Your task to perform on an android device: toggle notifications settings in the gmail app Image 0: 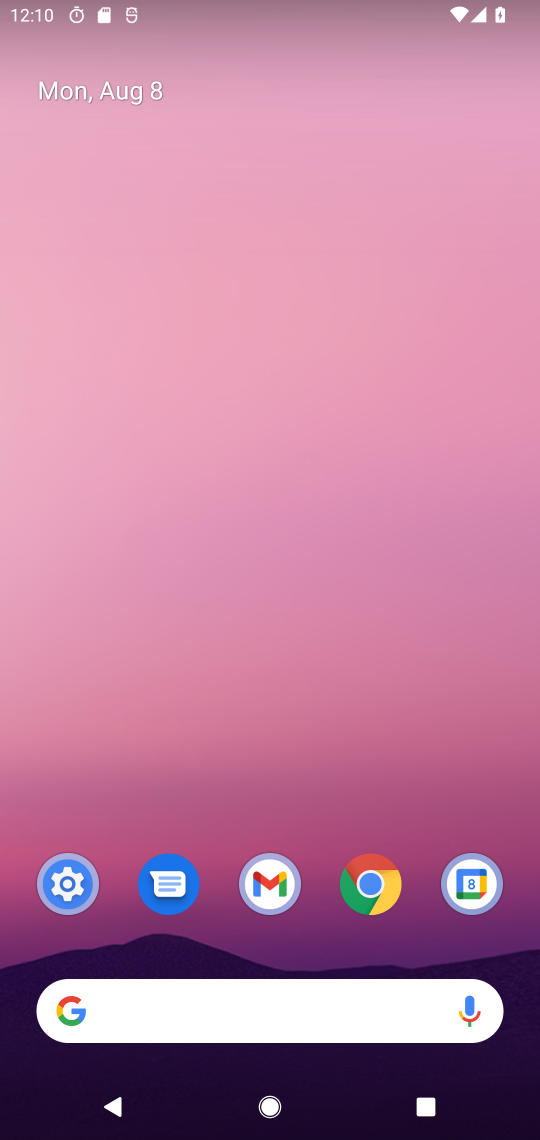
Step 0: click (280, 893)
Your task to perform on an android device: toggle notifications settings in the gmail app Image 1: 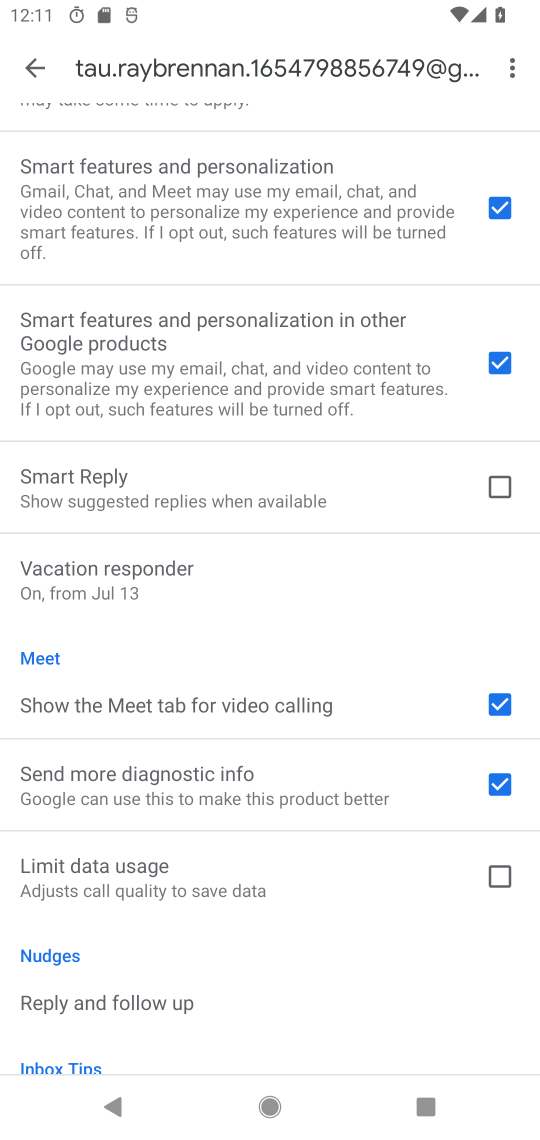
Step 1: click (42, 68)
Your task to perform on an android device: toggle notifications settings in the gmail app Image 2: 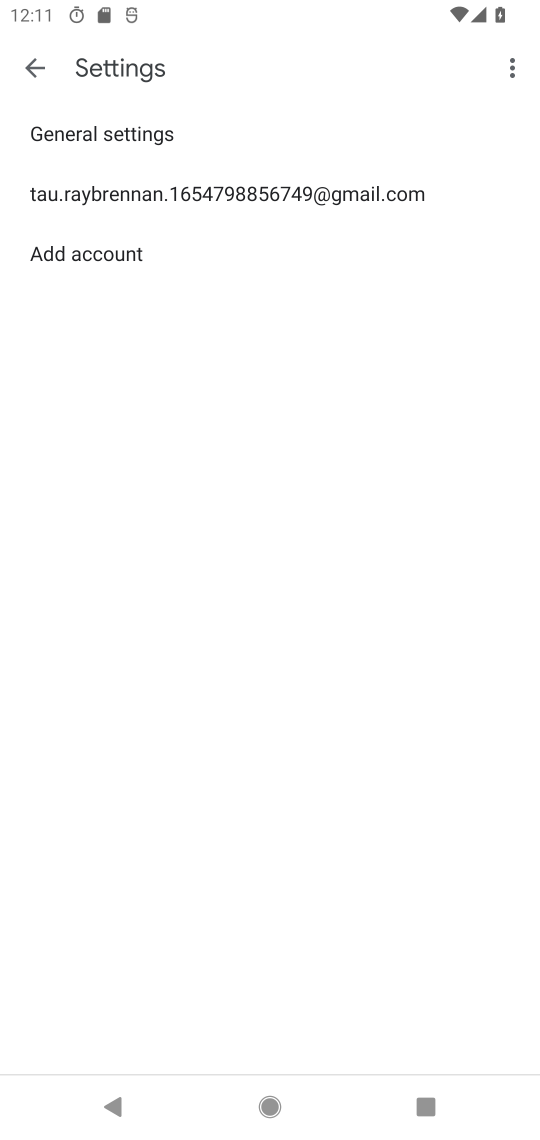
Step 2: click (42, 68)
Your task to perform on an android device: toggle notifications settings in the gmail app Image 3: 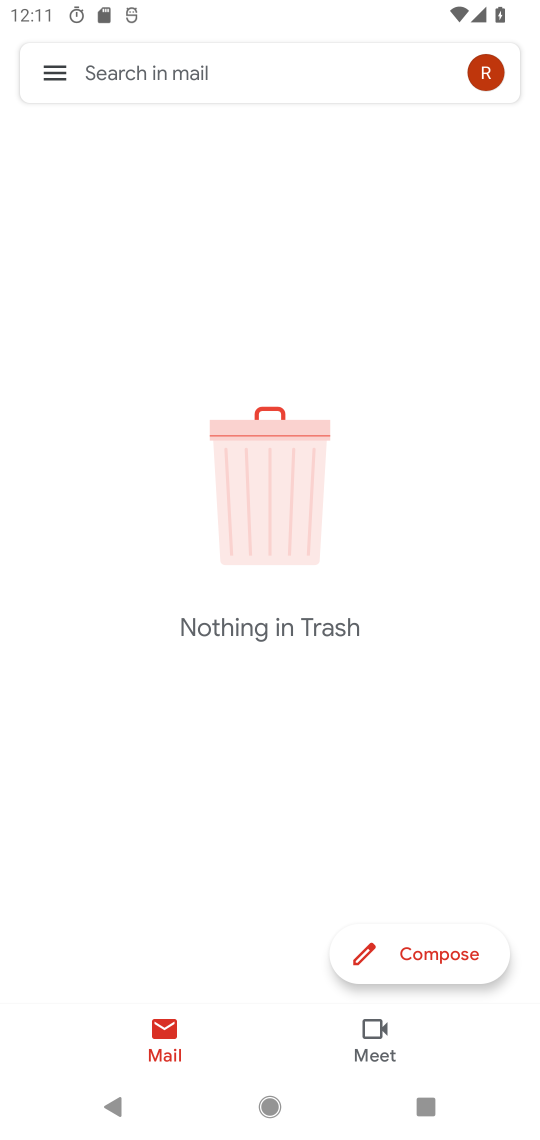
Step 3: click (46, 68)
Your task to perform on an android device: toggle notifications settings in the gmail app Image 4: 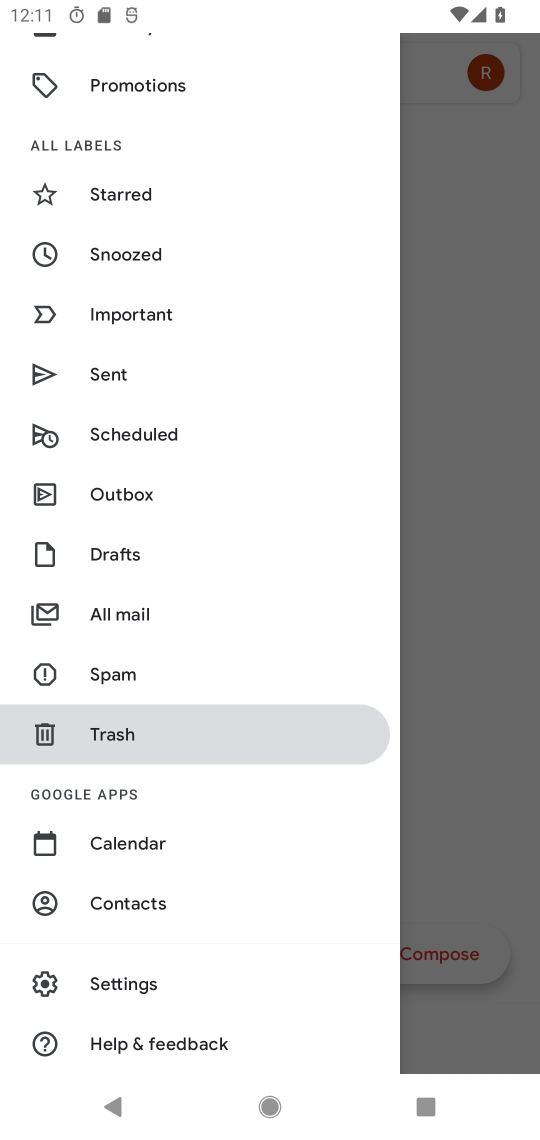
Step 4: click (114, 987)
Your task to perform on an android device: toggle notifications settings in the gmail app Image 5: 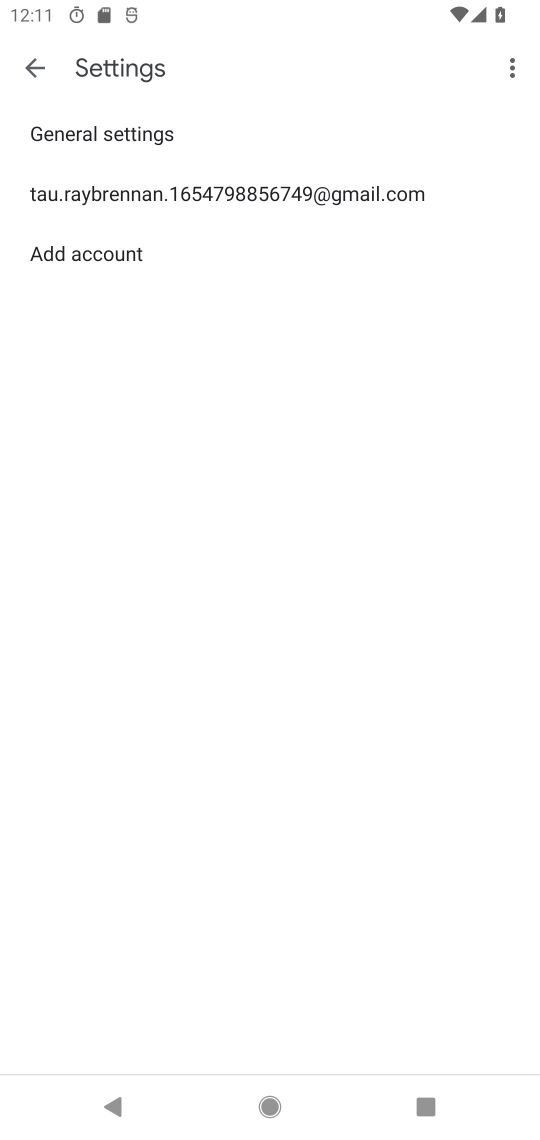
Step 5: click (126, 197)
Your task to perform on an android device: toggle notifications settings in the gmail app Image 6: 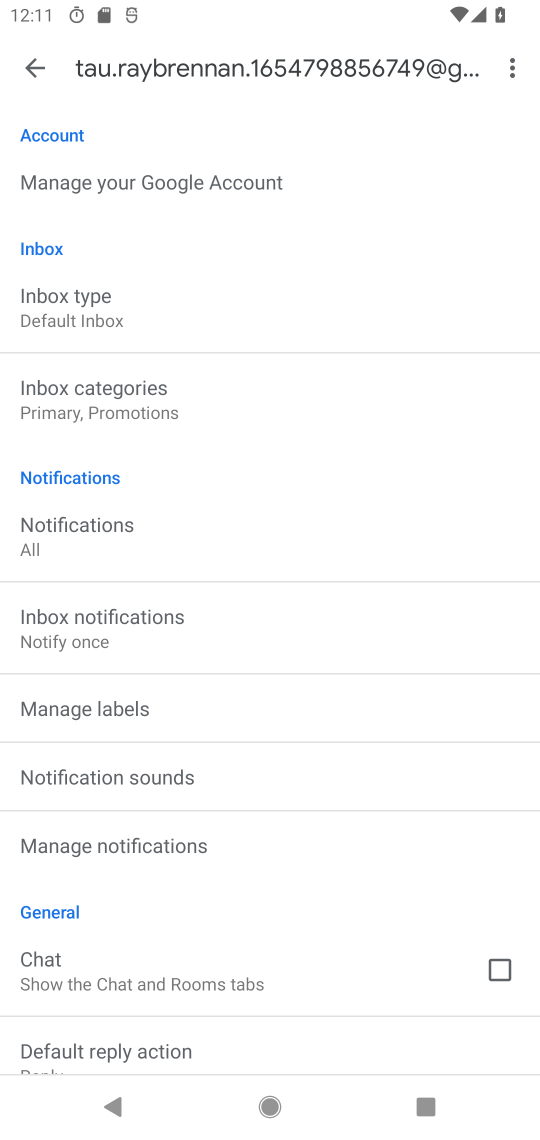
Step 6: click (120, 838)
Your task to perform on an android device: toggle notifications settings in the gmail app Image 7: 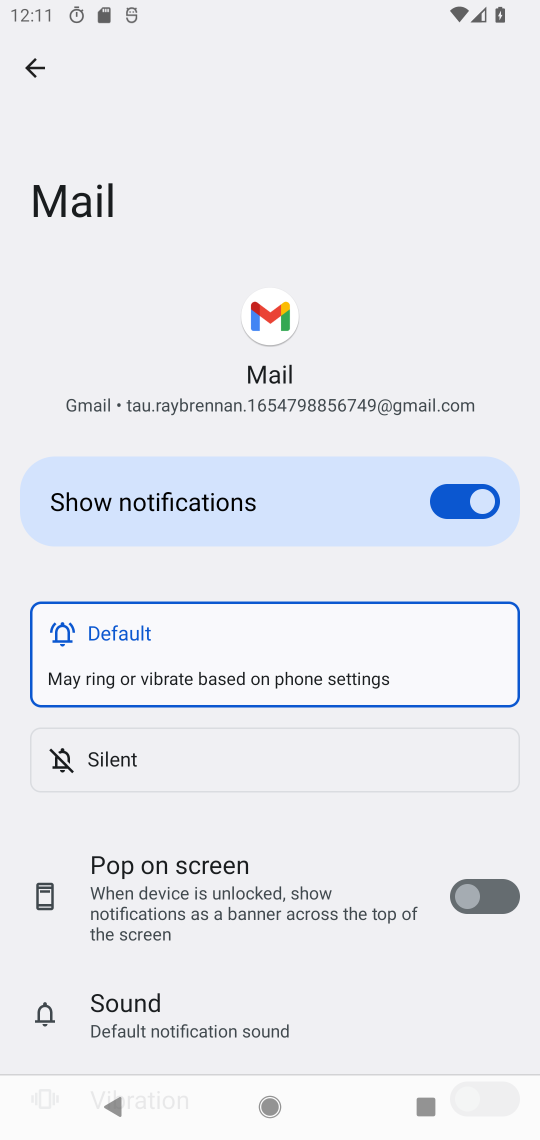
Step 7: click (445, 496)
Your task to perform on an android device: toggle notifications settings in the gmail app Image 8: 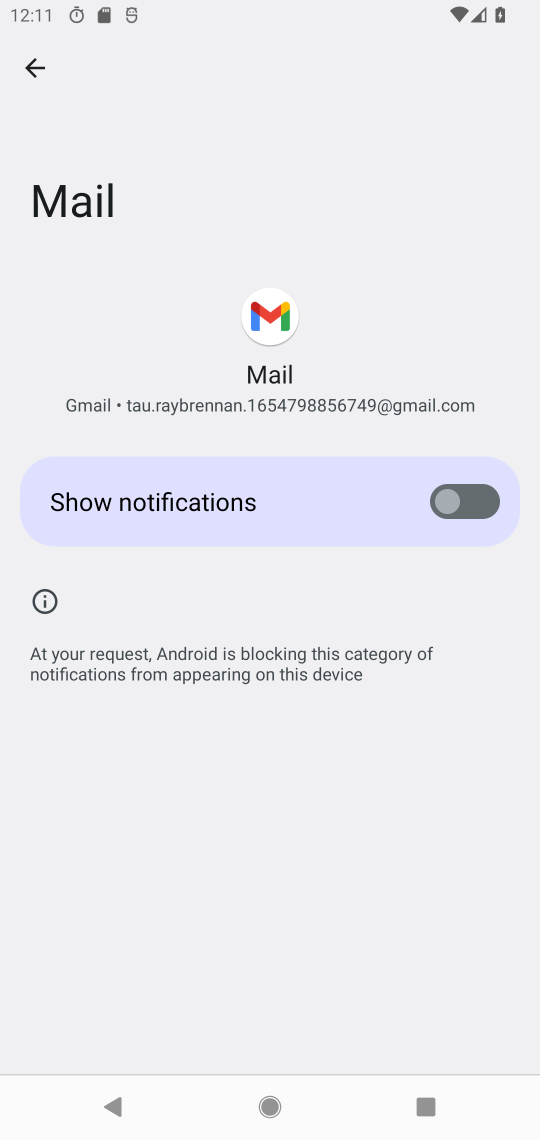
Step 8: task complete